Your task to perform on an android device: star an email in the gmail app Image 0: 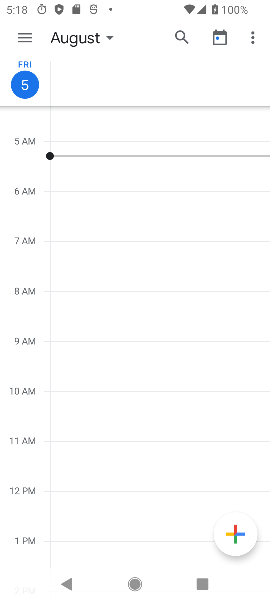
Step 0: press back button
Your task to perform on an android device: star an email in the gmail app Image 1: 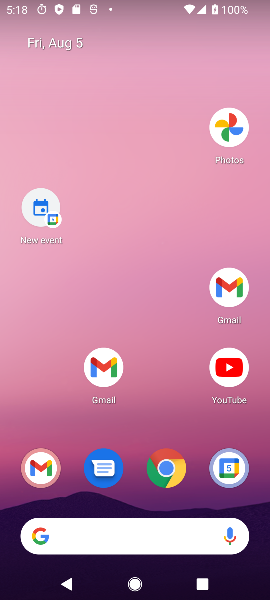
Step 1: press home button
Your task to perform on an android device: star an email in the gmail app Image 2: 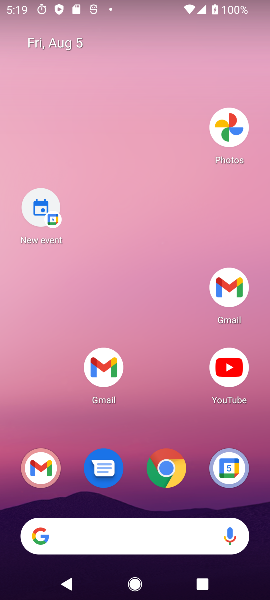
Step 2: drag from (193, 541) to (139, 271)
Your task to perform on an android device: star an email in the gmail app Image 3: 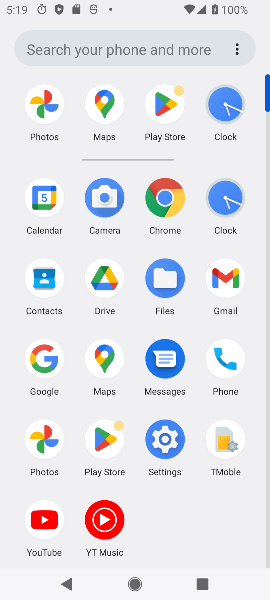
Step 3: drag from (180, 538) to (121, 229)
Your task to perform on an android device: star an email in the gmail app Image 4: 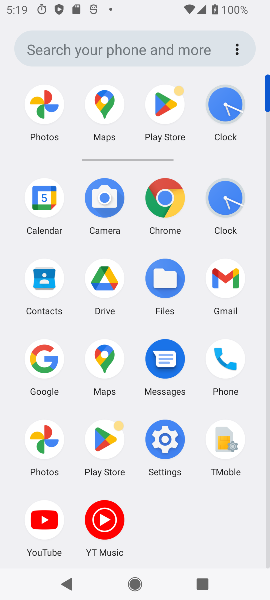
Step 4: click (221, 282)
Your task to perform on an android device: star an email in the gmail app Image 5: 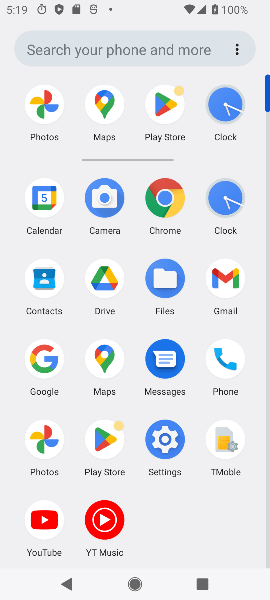
Step 5: click (221, 282)
Your task to perform on an android device: star an email in the gmail app Image 6: 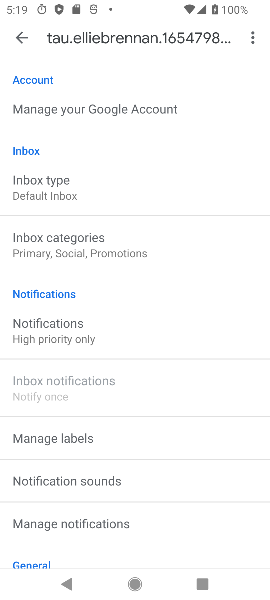
Step 6: click (18, 36)
Your task to perform on an android device: star an email in the gmail app Image 7: 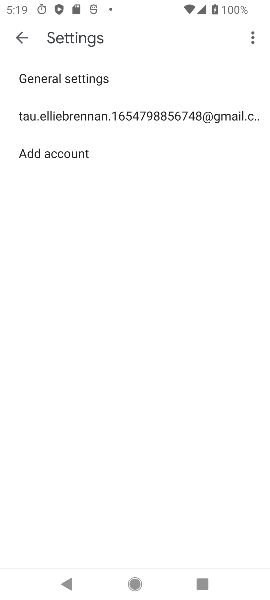
Step 7: click (18, 36)
Your task to perform on an android device: star an email in the gmail app Image 8: 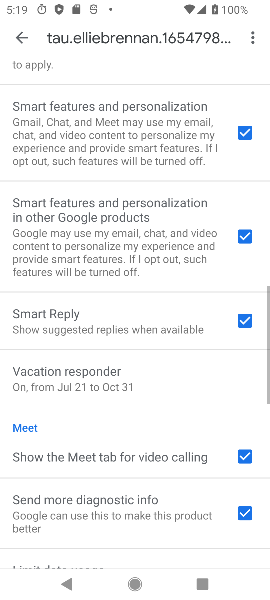
Step 8: click (18, 36)
Your task to perform on an android device: star an email in the gmail app Image 9: 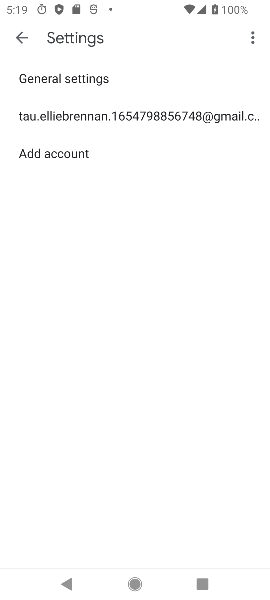
Step 9: click (18, 36)
Your task to perform on an android device: star an email in the gmail app Image 10: 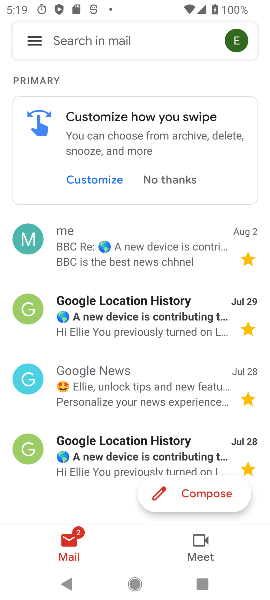
Step 10: click (18, 36)
Your task to perform on an android device: star an email in the gmail app Image 11: 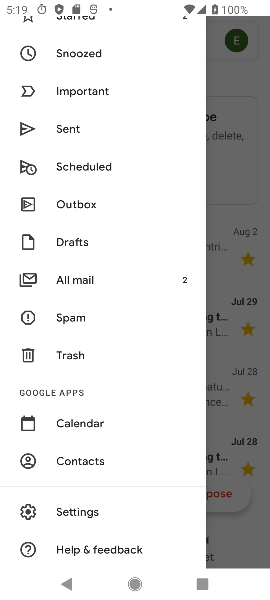
Step 11: click (229, 164)
Your task to perform on an android device: star an email in the gmail app Image 12: 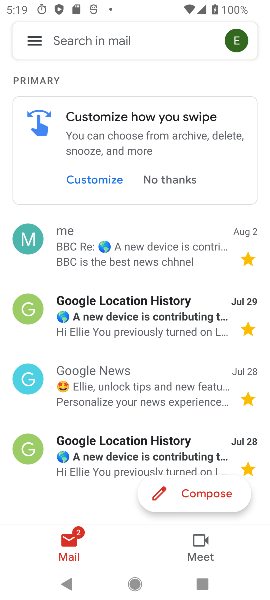
Step 12: task complete